Your task to perform on an android device: Open the calendar and show me this week's events Image 0: 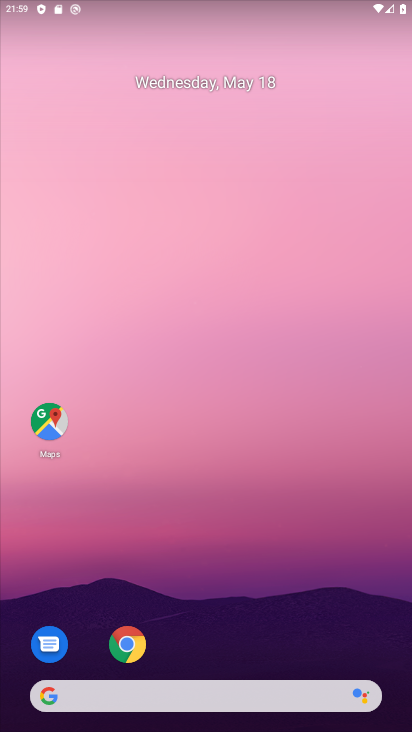
Step 0: drag from (278, 565) to (253, 65)
Your task to perform on an android device: Open the calendar and show me this week's events Image 1: 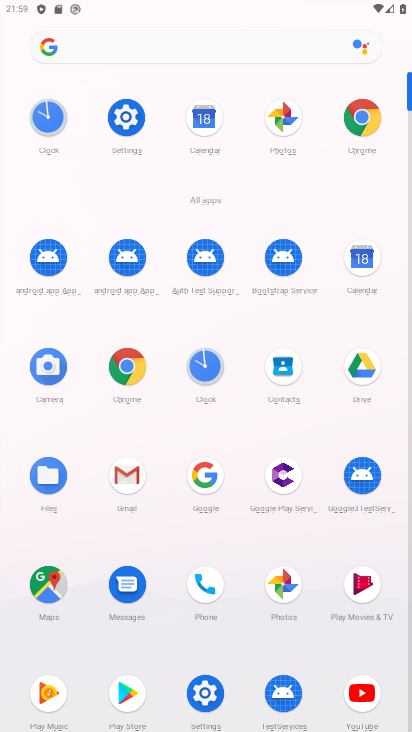
Step 1: click (360, 260)
Your task to perform on an android device: Open the calendar and show me this week's events Image 2: 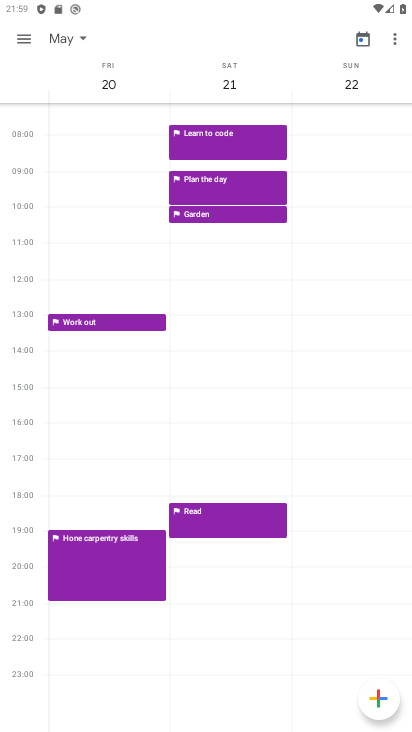
Step 2: click (61, 37)
Your task to perform on an android device: Open the calendar and show me this week's events Image 3: 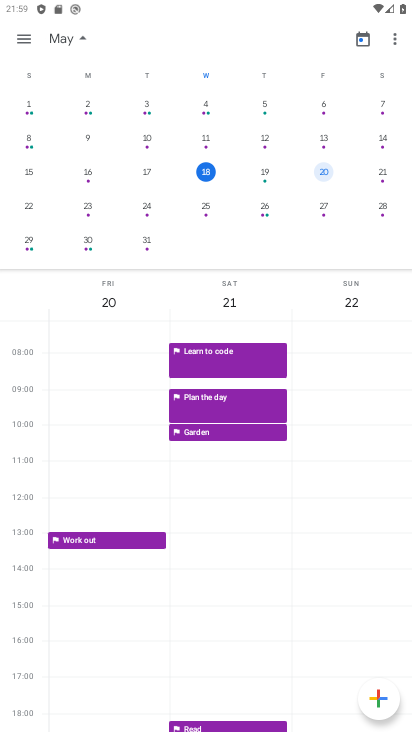
Step 3: click (25, 34)
Your task to perform on an android device: Open the calendar and show me this week's events Image 4: 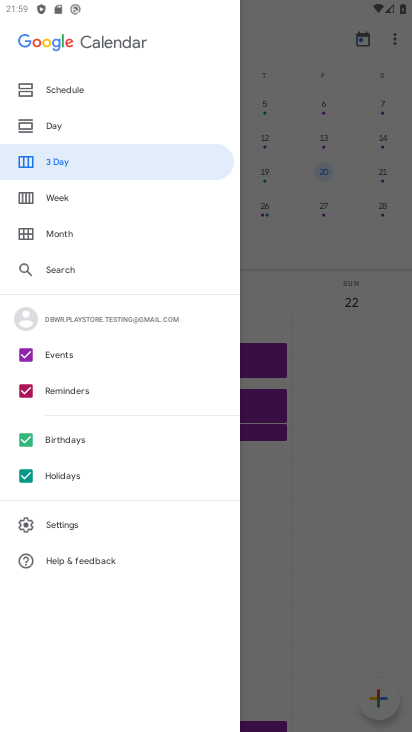
Step 4: click (54, 194)
Your task to perform on an android device: Open the calendar and show me this week's events Image 5: 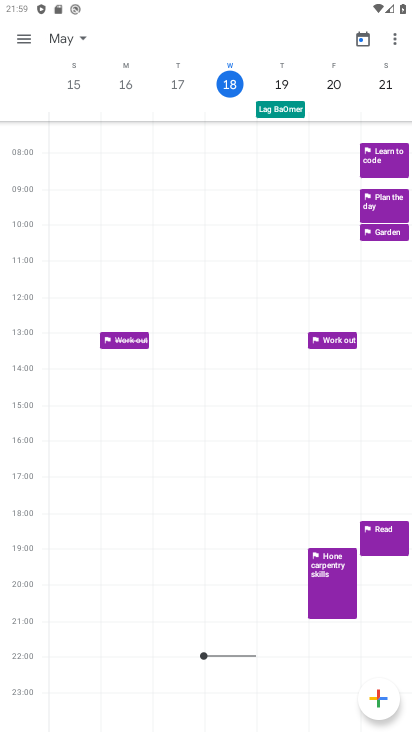
Step 5: task complete